Your task to perform on an android device: Add "logitech g903" to the cart on walmart.com Image 0: 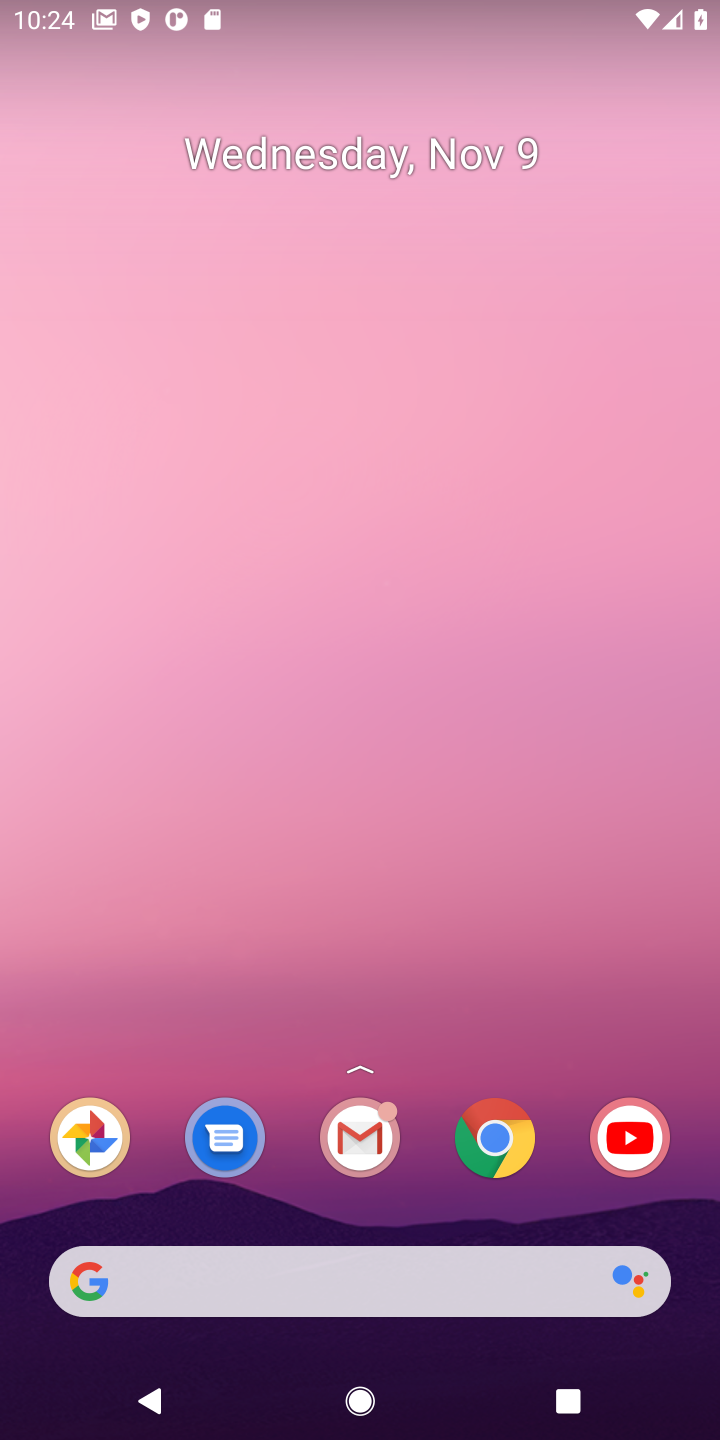
Step 0: drag from (429, 759) to (400, 91)
Your task to perform on an android device: Add "logitech g903" to the cart on walmart.com Image 1: 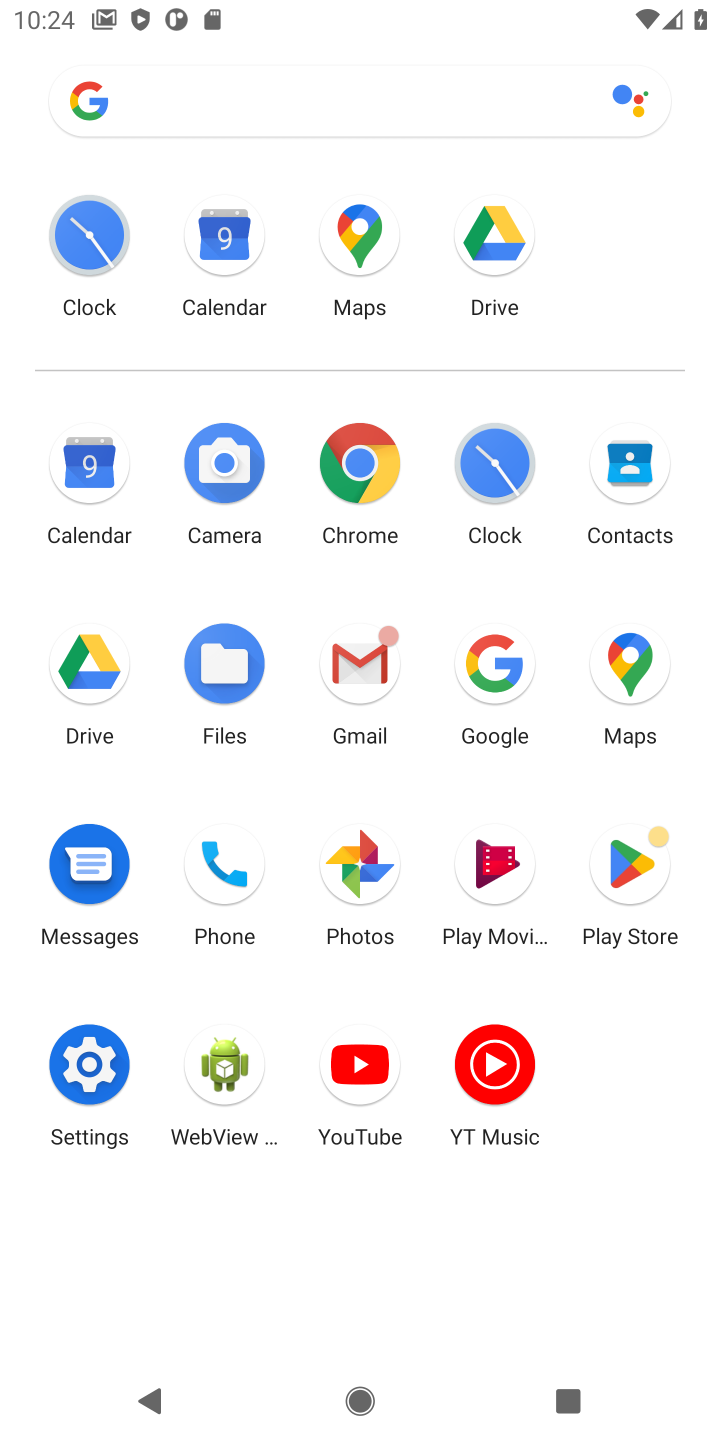
Step 1: click (379, 450)
Your task to perform on an android device: Add "logitech g903" to the cart on walmart.com Image 2: 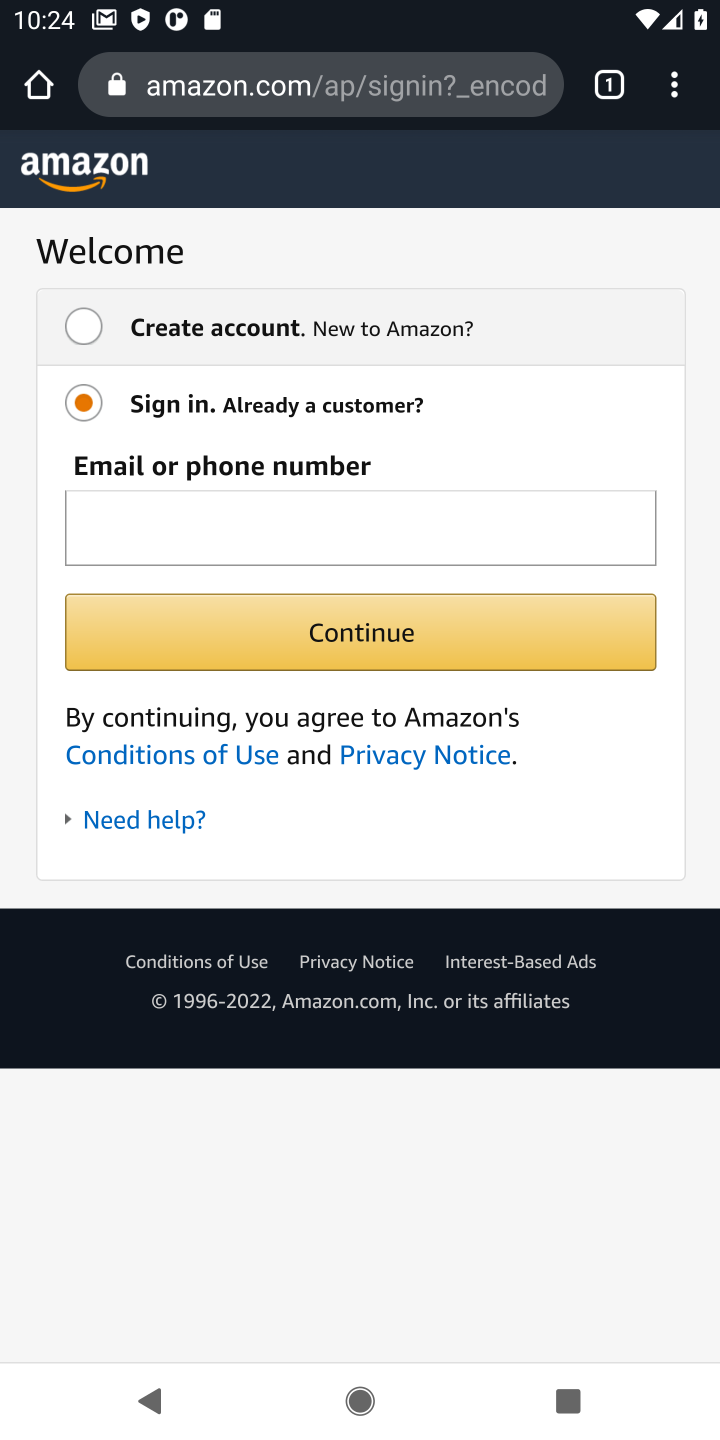
Step 2: click (262, 95)
Your task to perform on an android device: Add "logitech g903" to the cart on walmart.com Image 3: 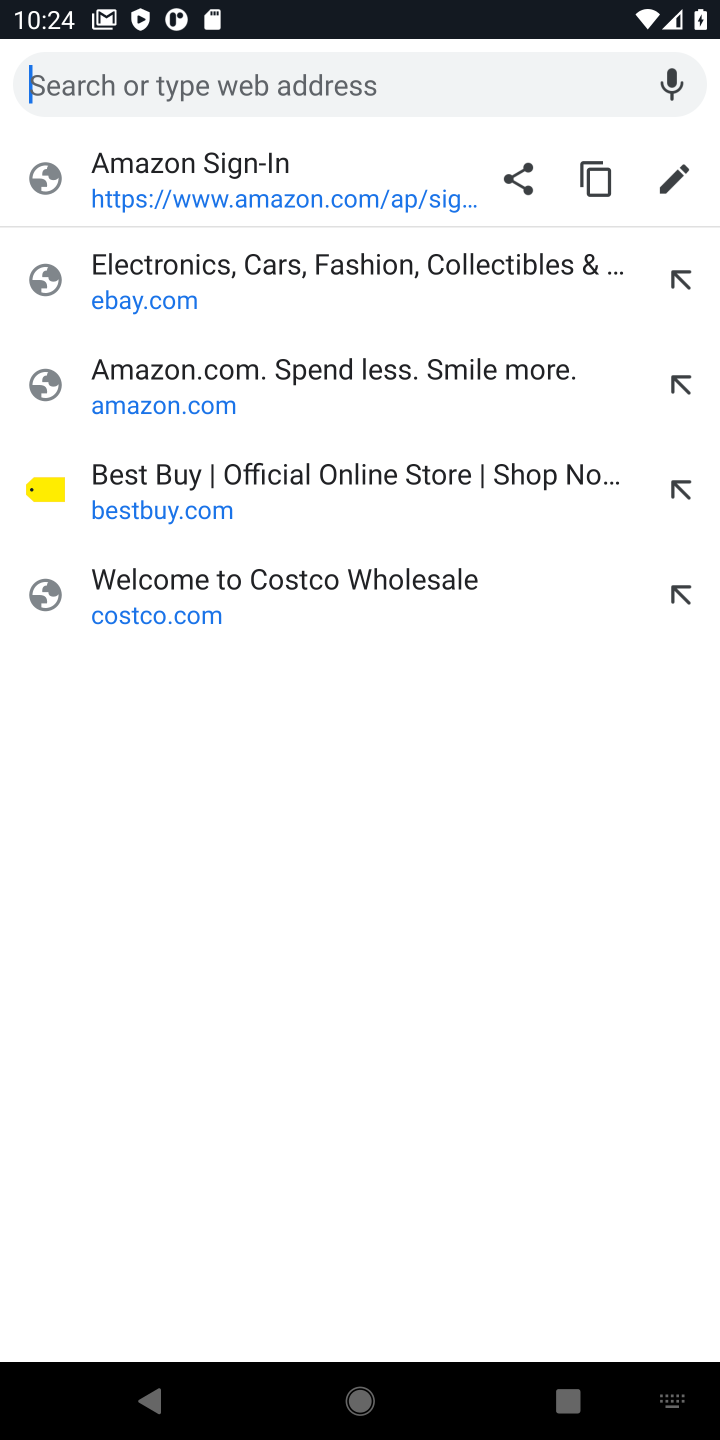
Step 3: type "walmart.com"
Your task to perform on an android device: Add "logitech g903" to the cart on walmart.com Image 4: 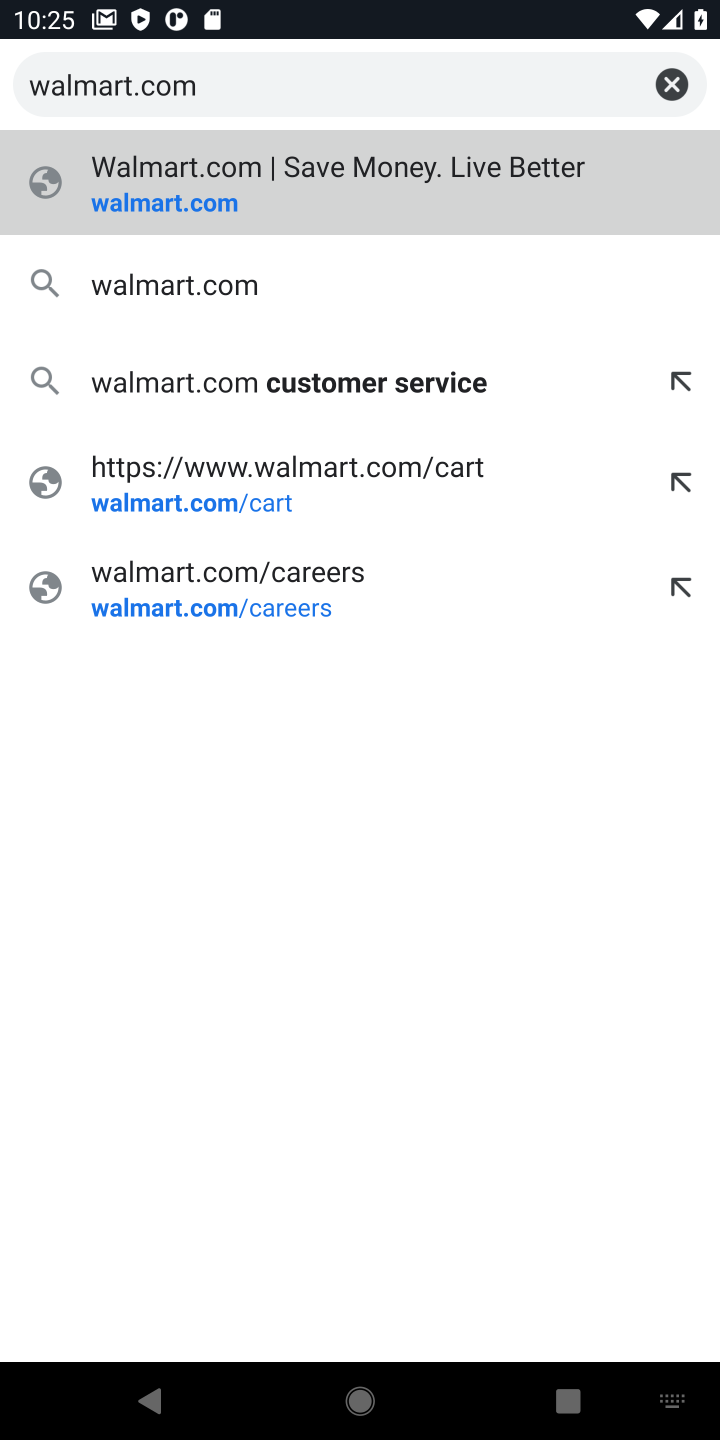
Step 4: press enter
Your task to perform on an android device: Add "logitech g903" to the cart on walmart.com Image 5: 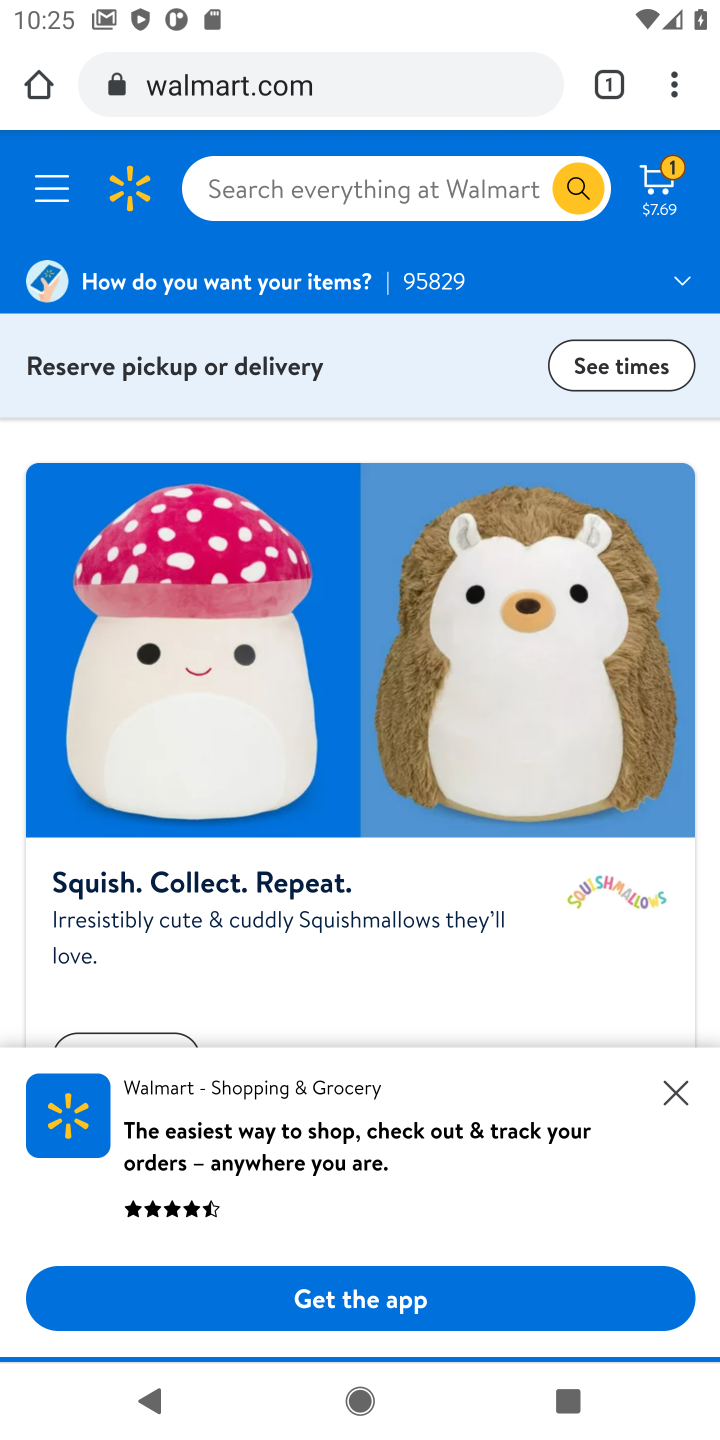
Step 5: click (387, 181)
Your task to perform on an android device: Add "logitech g903" to the cart on walmart.com Image 6: 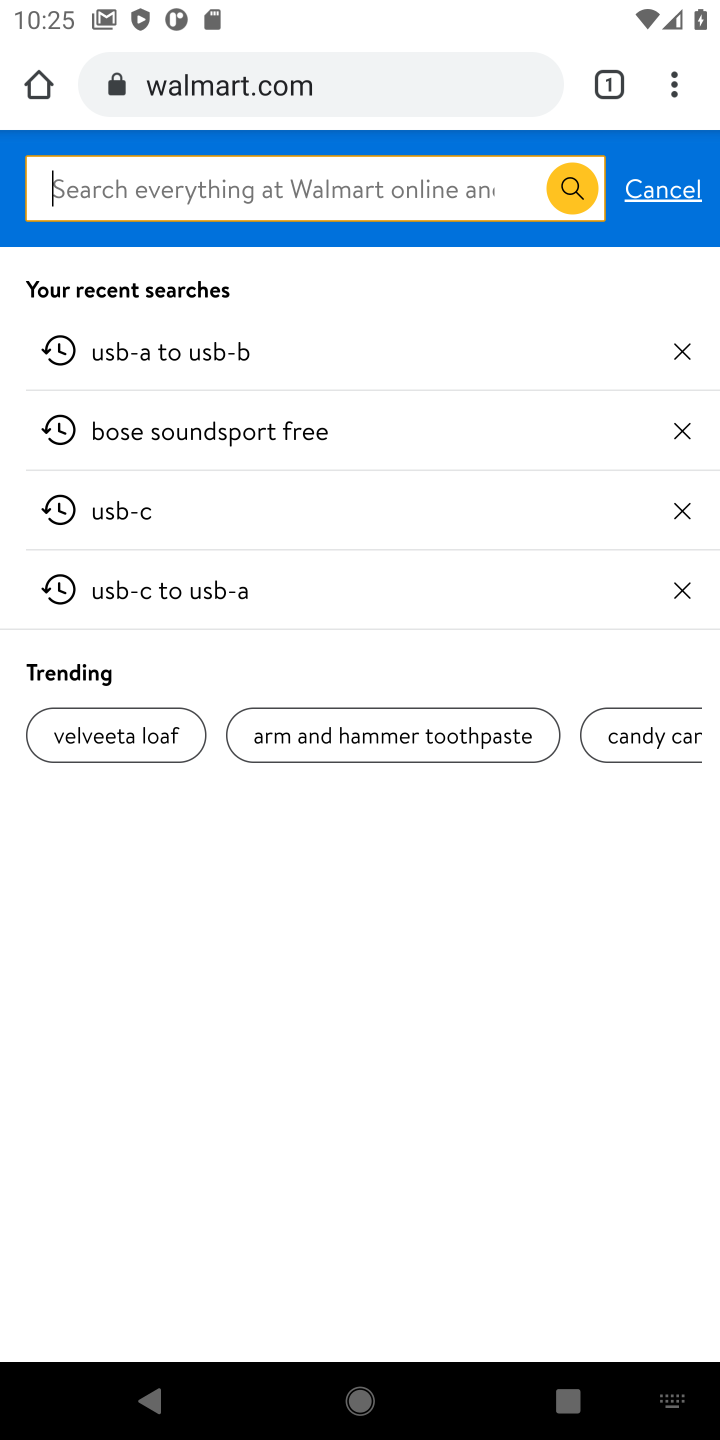
Step 6: type "logitech g903"
Your task to perform on an android device: Add "logitech g903" to the cart on walmart.com Image 7: 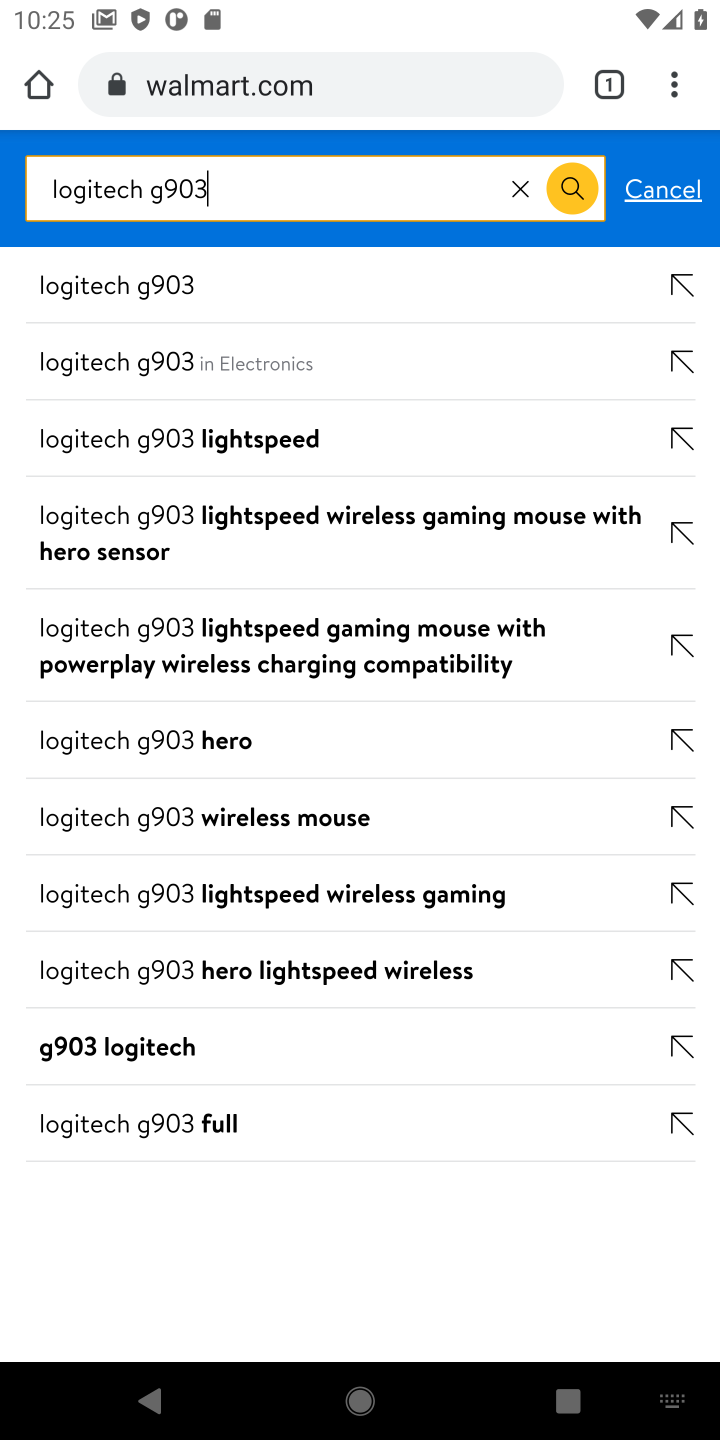
Step 7: press enter
Your task to perform on an android device: Add "logitech g903" to the cart on walmart.com Image 8: 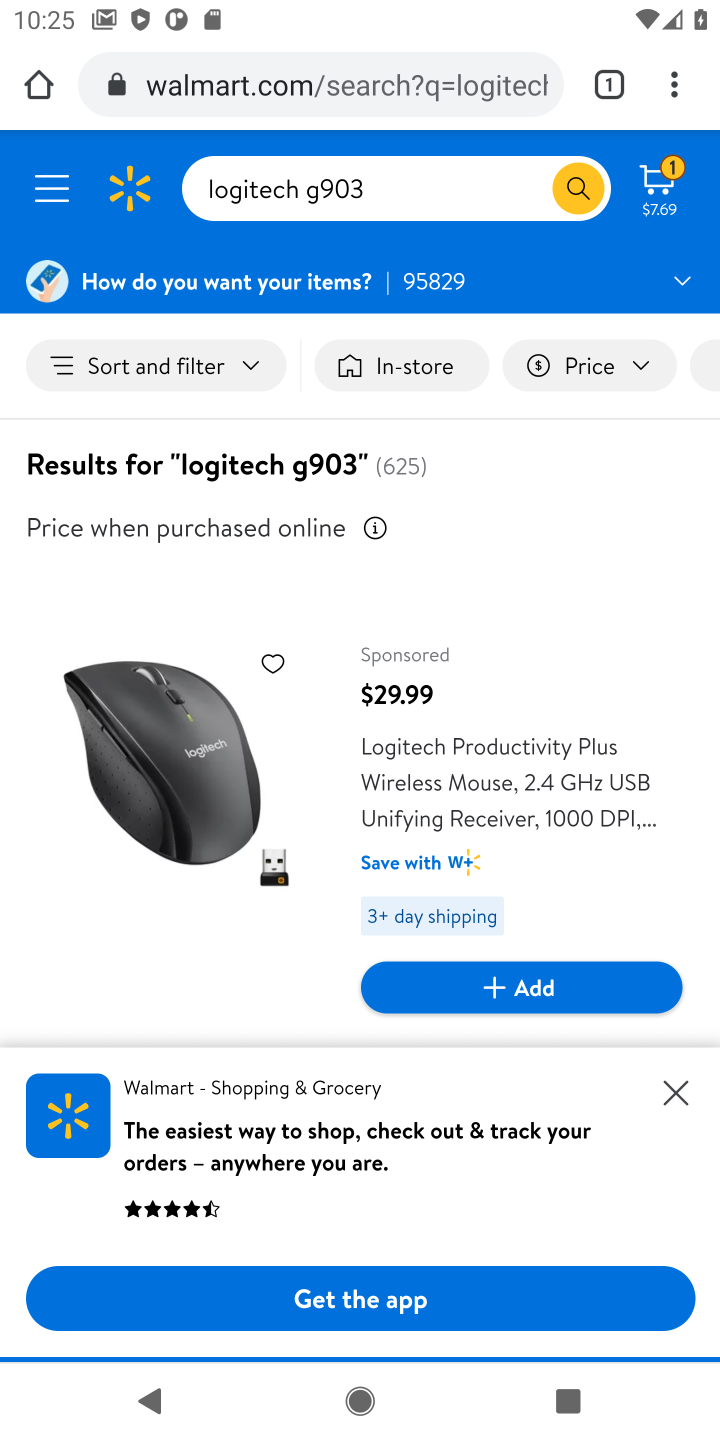
Step 8: click (467, 463)
Your task to perform on an android device: Add "logitech g903" to the cart on walmart.com Image 9: 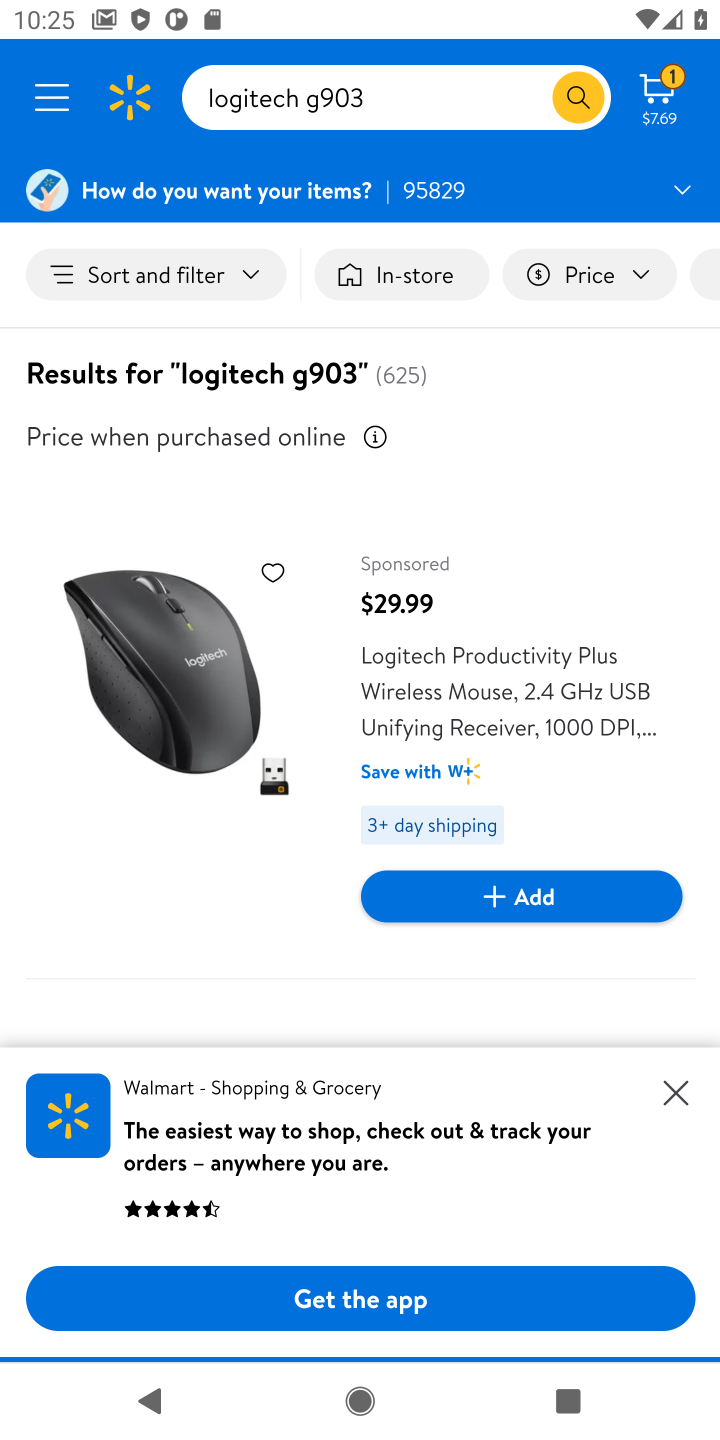
Step 9: drag from (235, 953) to (242, 119)
Your task to perform on an android device: Add "logitech g903" to the cart on walmart.com Image 10: 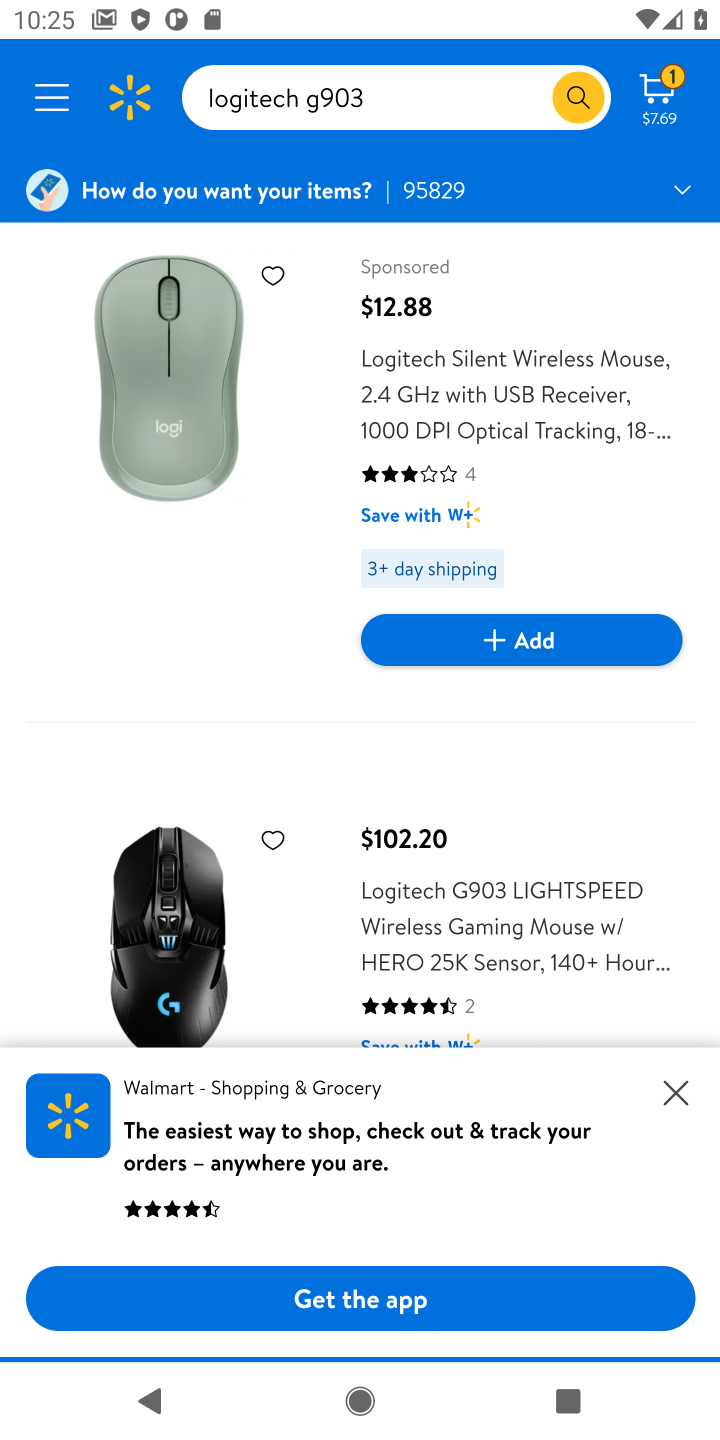
Step 10: drag from (443, 967) to (505, 424)
Your task to perform on an android device: Add "logitech g903" to the cart on walmart.com Image 11: 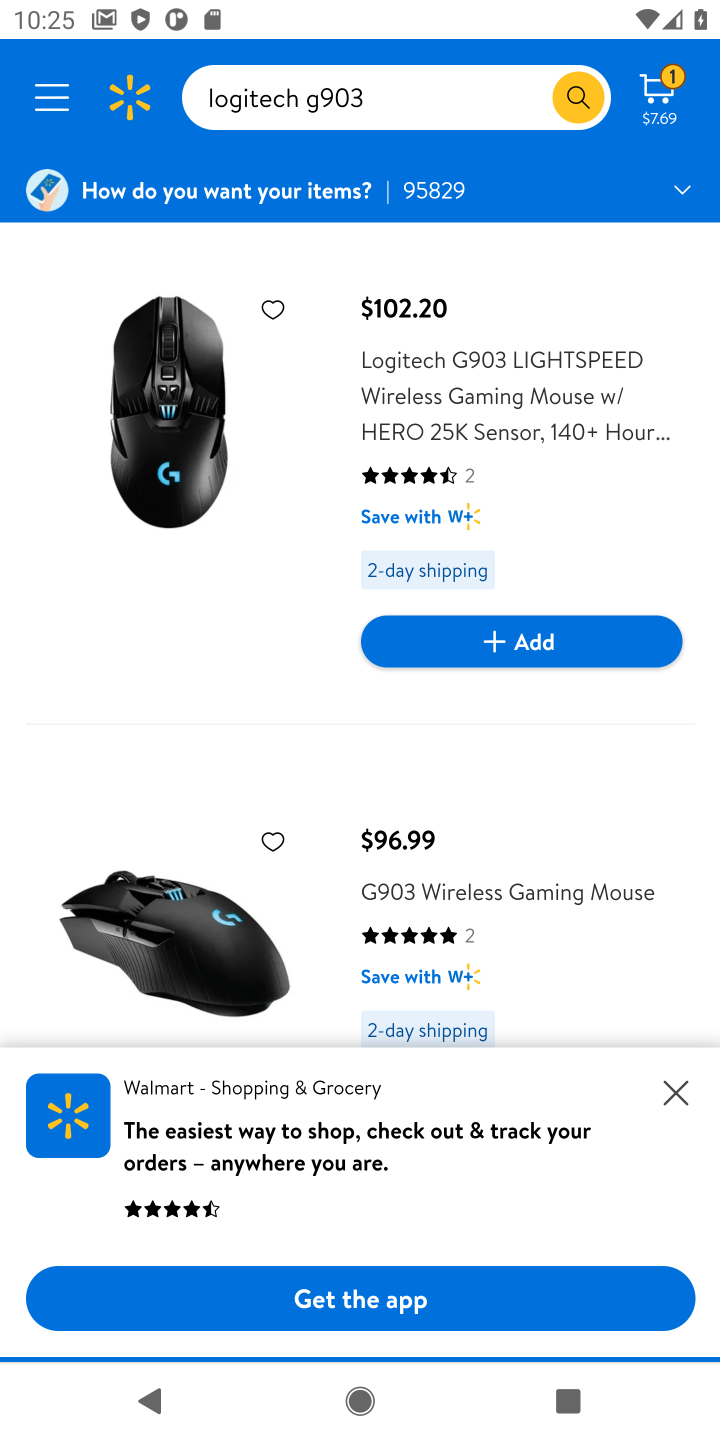
Step 11: click (522, 641)
Your task to perform on an android device: Add "logitech g903" to the cart on walmart.com Image 12: 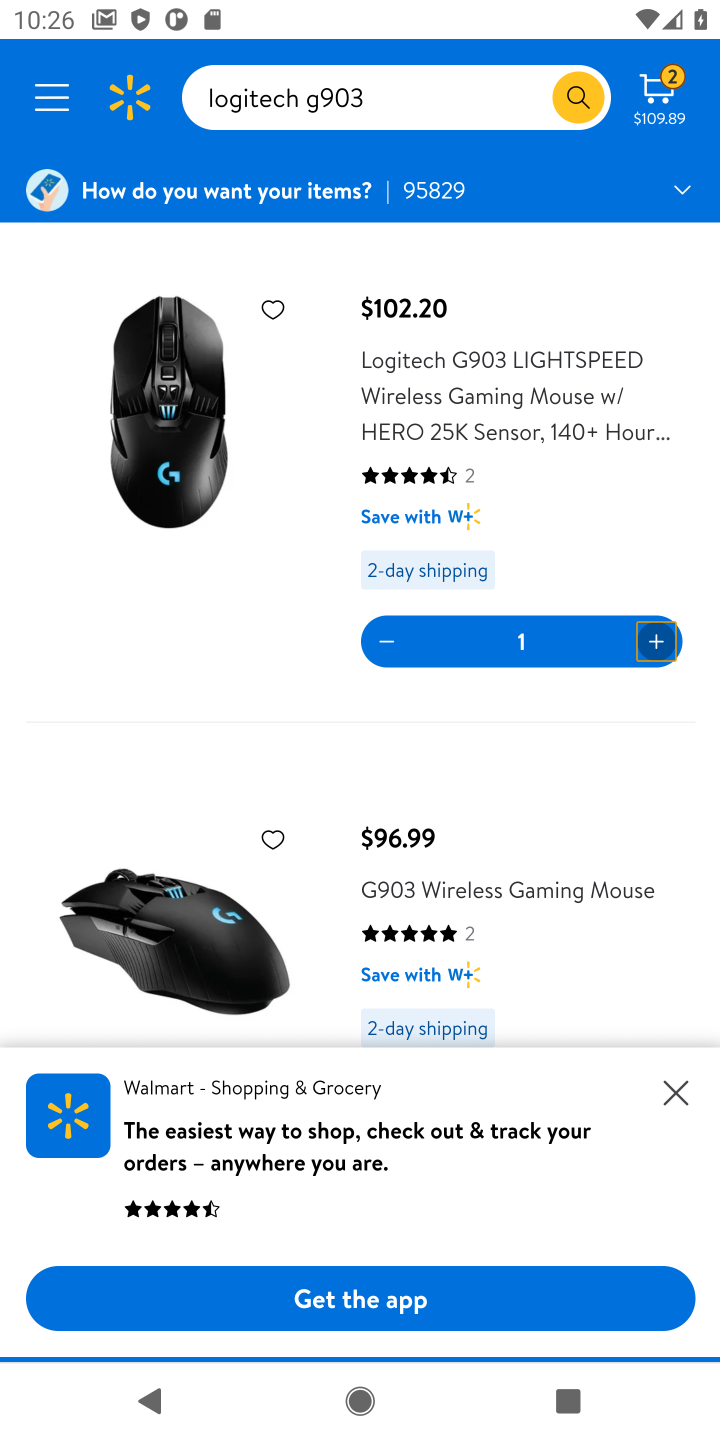
Step 12: task complete